Your task to perform on an android device: Go to notification settings Image 0: 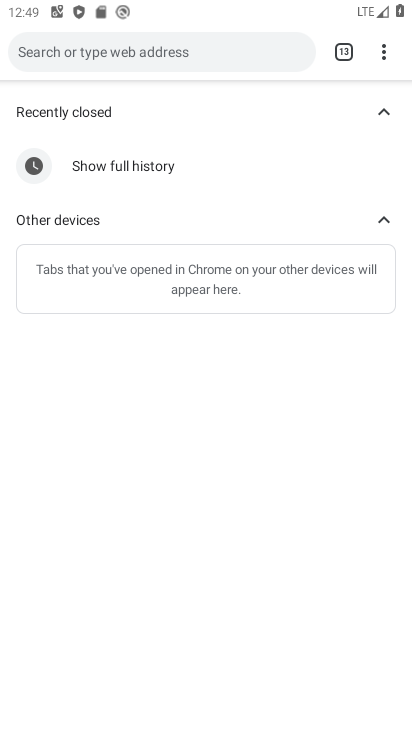
Step 0: press home button
Your task to perform on an android device: Go to notification settings Image 1: 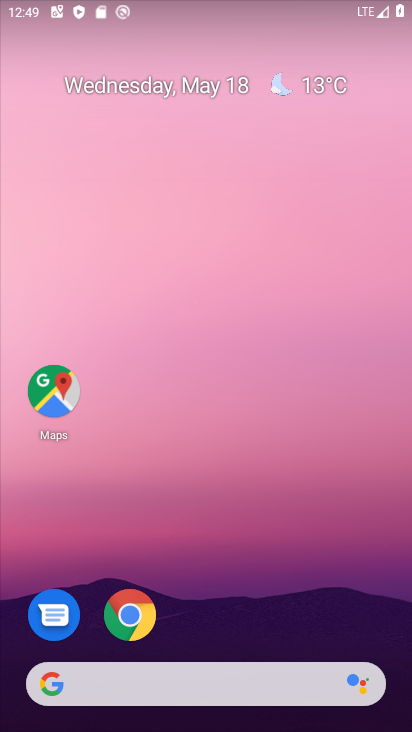
Step 1: drag from (145, 689) to (352, 194)
Your task to perform on an android device: Go to notification settings Image 2: 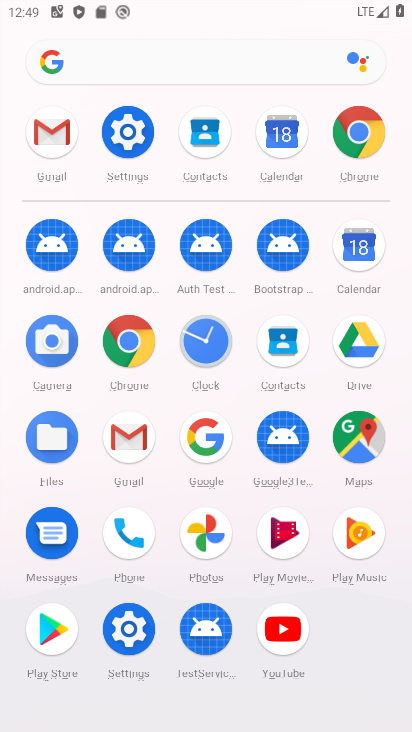
Step 2: click (149, 130)
Your task to perform on an android device: Go to notification settings Image 3: 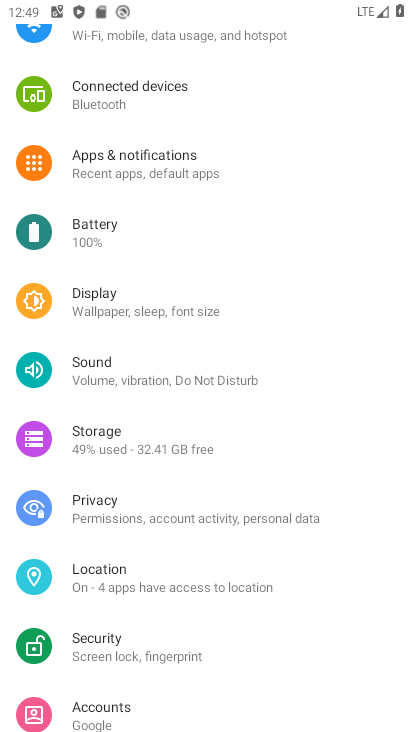
Step 3: drag from (256, 147) to (281, 695)
Your task to perform on an android device: Go to notification settings Image 4: 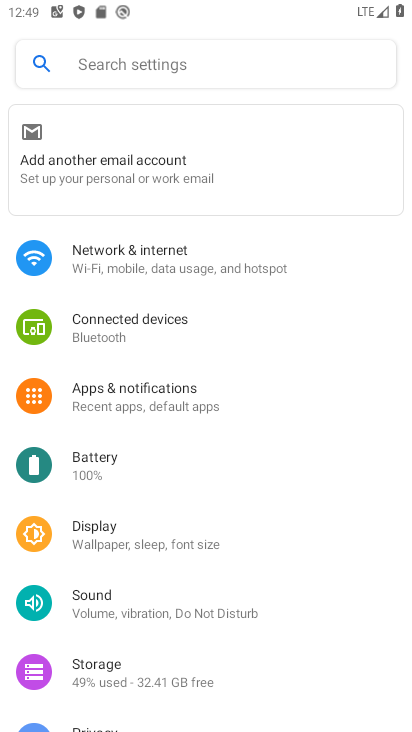
Step 4: click (170, 406)
Your task to perform on an android device: Go to notification settings Image 5: 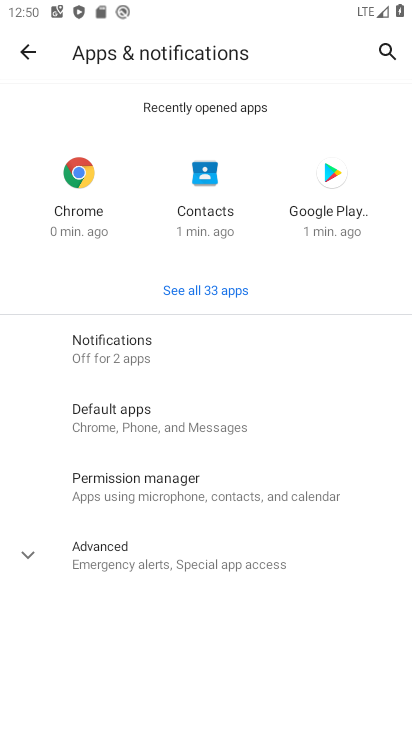
Step 5: click (130, 349)
Your task to perform on an android device: Go to notification settings Image 6: 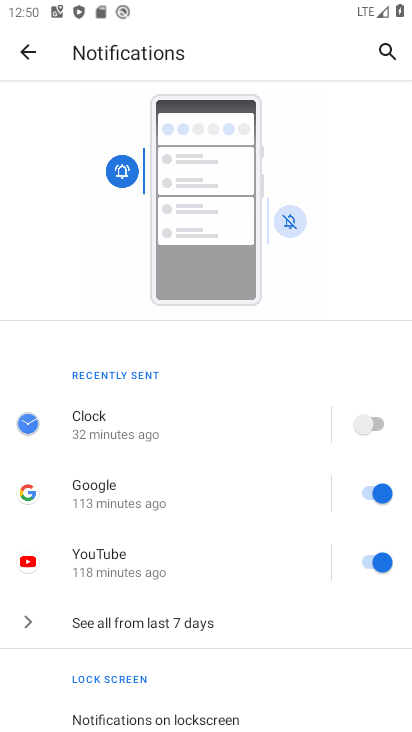
Step 6: task complete